Your task to perform on an android device: Go to sound settings Image 0: 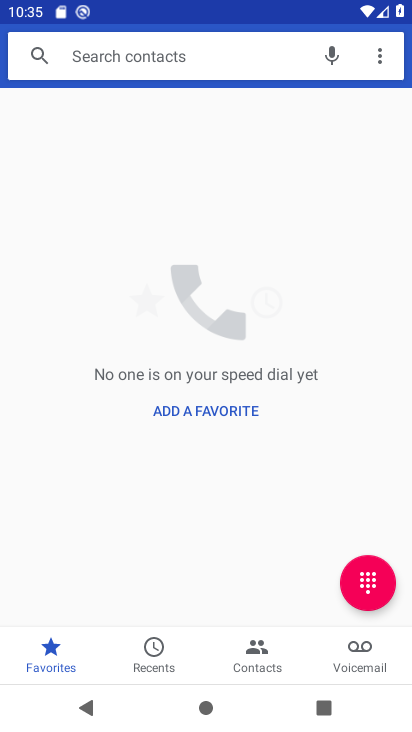
Step 0: press home button
Your task to perform on an android device: Go to sound settings Image 1: 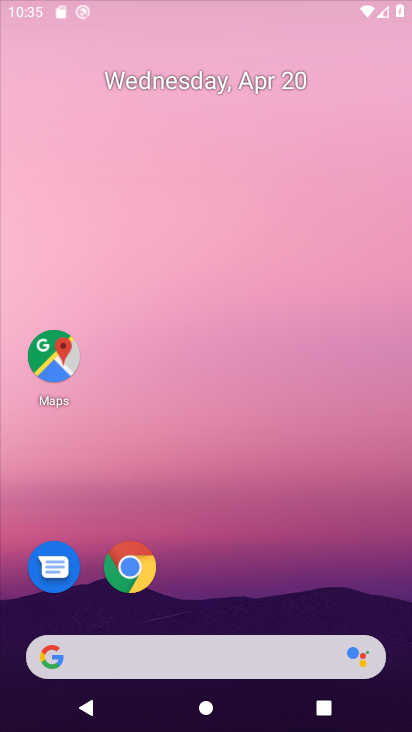
Step 1: drag from (205, 497) to (167, 0)
Your task to perform on an android device: Go to sound settings Image 2: 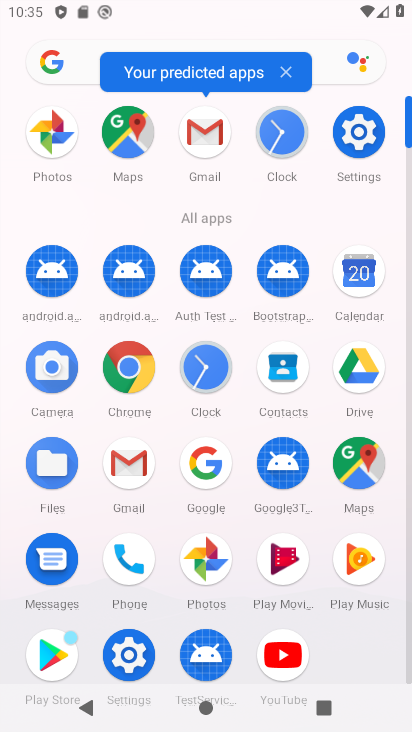
Step 2: click (367, 154)
Your task to perform on an android device: Go to sound settings Image 3: 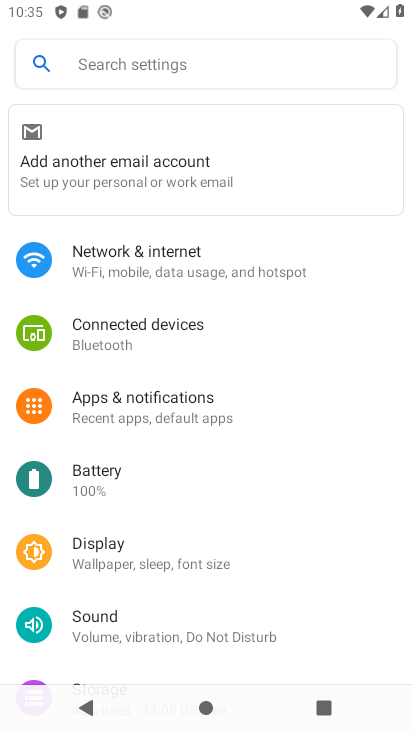
Step 3: click (113, 619)
Your task to perform on an android device: Go to sound settings Image 4: 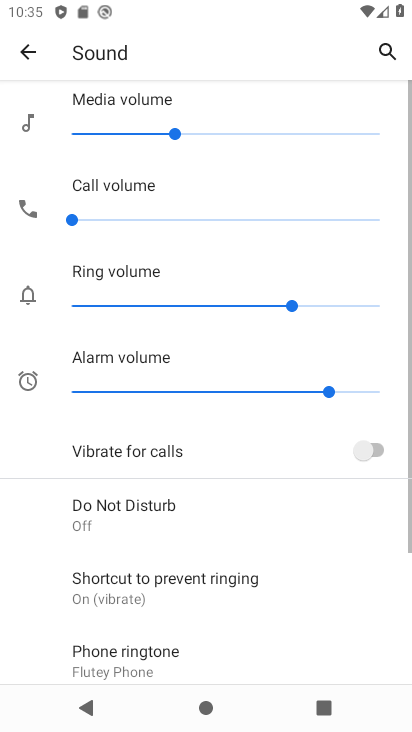
Step 4: task complete